Your task to perform on an android device: Open Google Image 0: 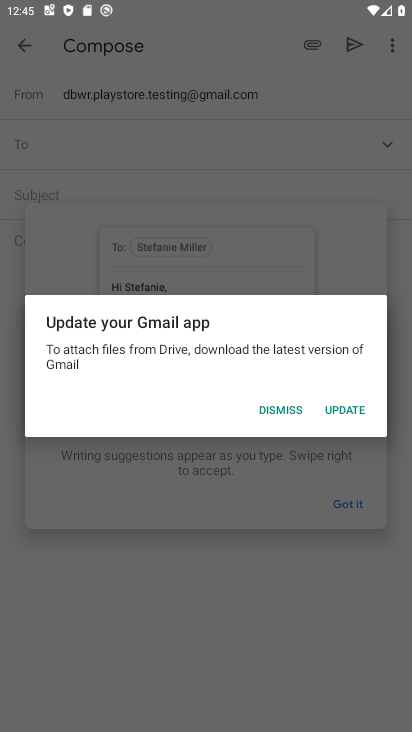
Step 0: press home button
Your task to perform on an android device: Open Google Image 1: 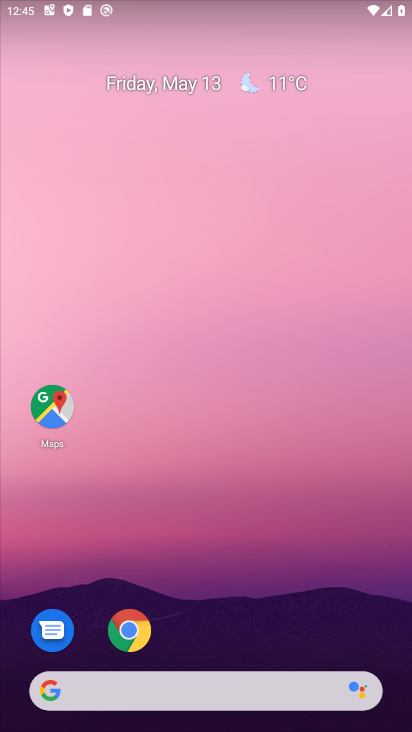
Step 1: drag from (289, 607) to (237, 31)
Your task to perform on an android device: Open Google Image 2: 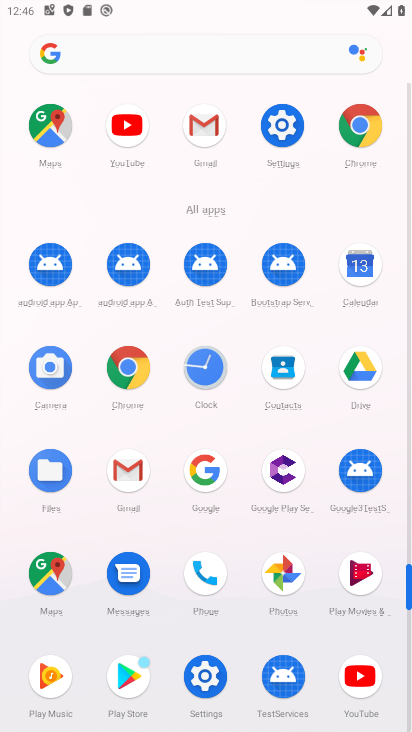
Step 2: click (211, 475)
Your task to perform on an android device: Open Google Image 3: 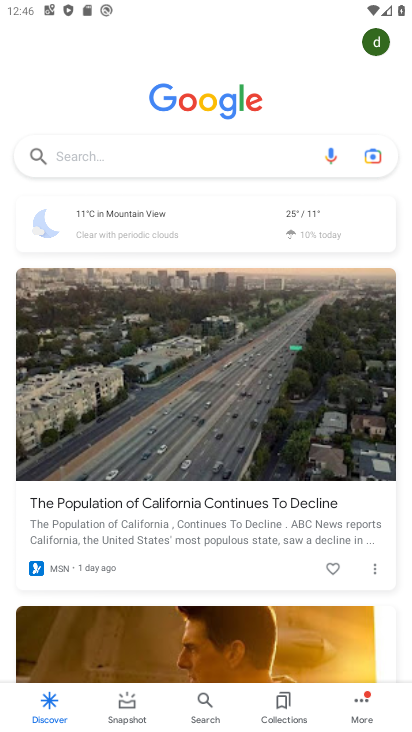
Step 3: task complete